Your task to perform on an android device: open a bookmark in the chrome app Image 0: 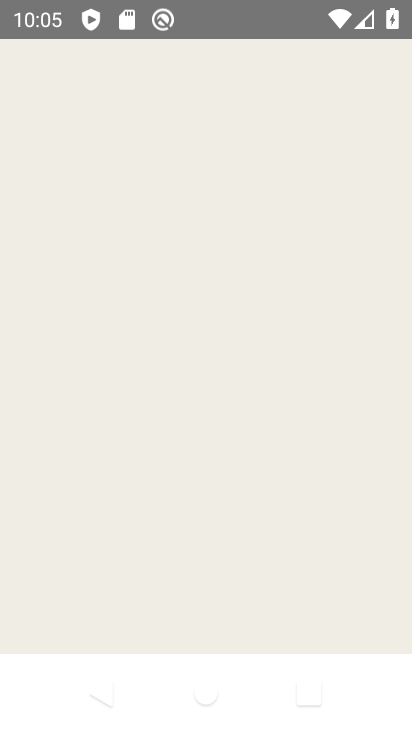
Step 0: click (272, 185)
Your task to perform on an android device: open a bookmark in the chrome app Image 1: 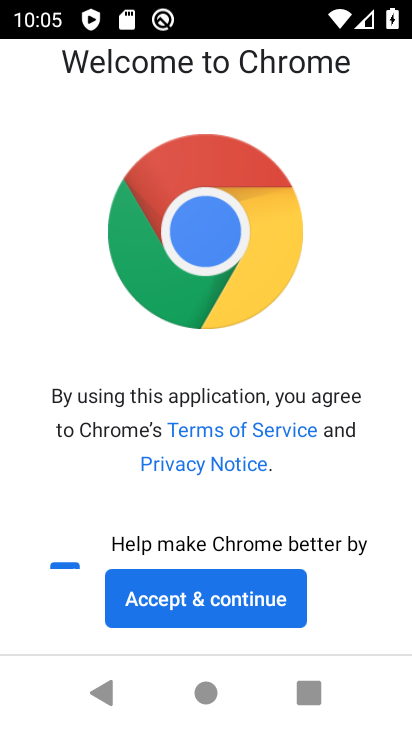
Step 1: press home button
Your task to perform on an android device: open a bookmark in the chrome app Image 2: 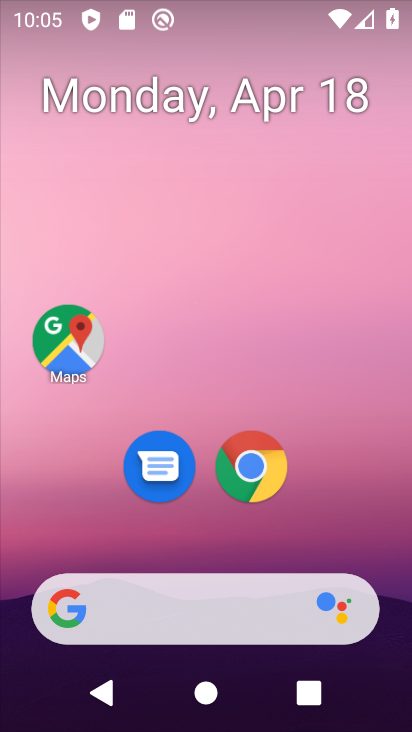
Step 2: click (265, 490)
Your task to perform on an android device: open a bookmark in the chrome app Image 3: 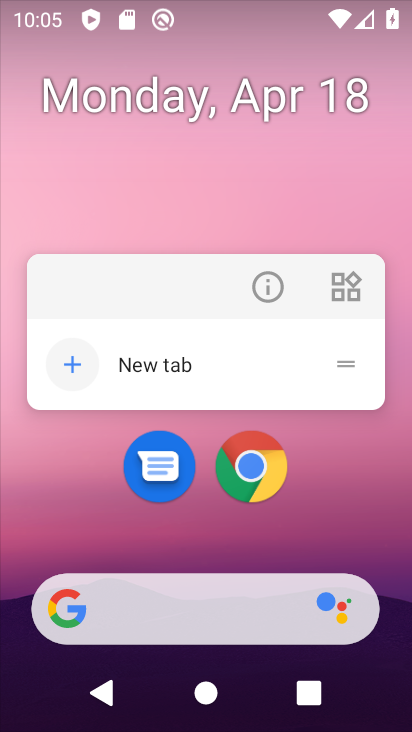
Step 3: click (258, 479)
Your task to perform on an android device: open a bookmark in the chrome app Image 4: 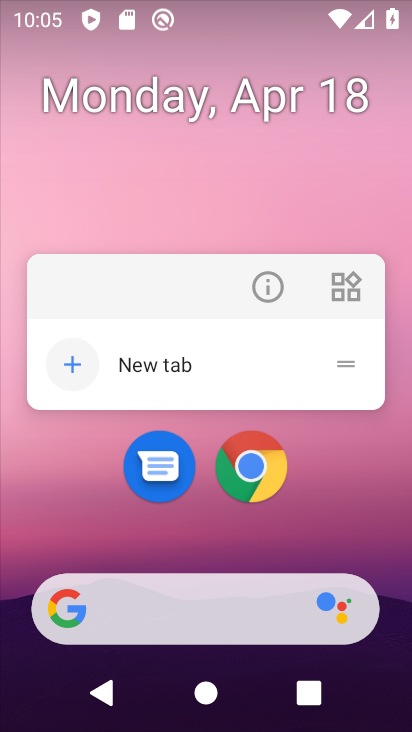
Step 4: click (251, 466)
Your task to perform on an android device: open a bookmark in the chrome app Image 5: 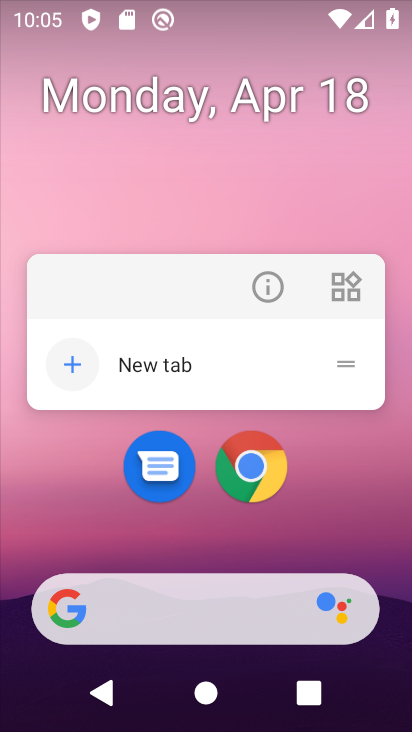
Step 5: click (251, 466)
Your task to perform on an android device: open a bookmark in the chrome app Image 6: 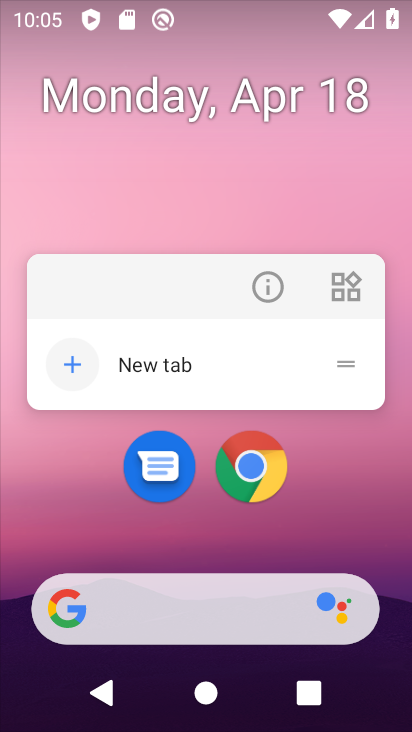
Step 6: click (251, 466)
Your task to perform on an android device: open a bookmark in the chrome app Image 7: 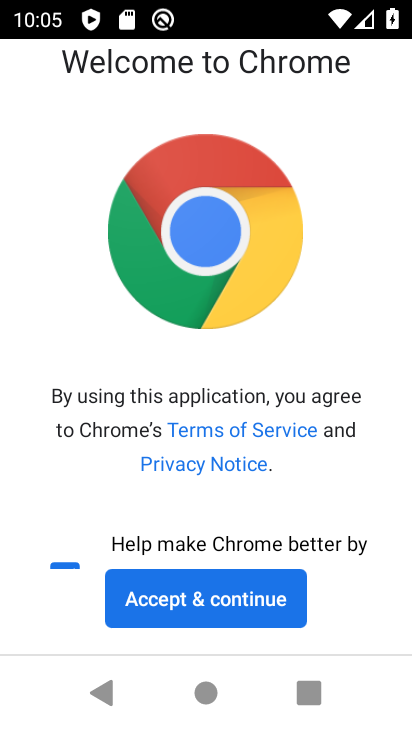
Step 7: click (252, 588)
Your task to perform on an android device: open a bookmark in the chrome app Image 8: 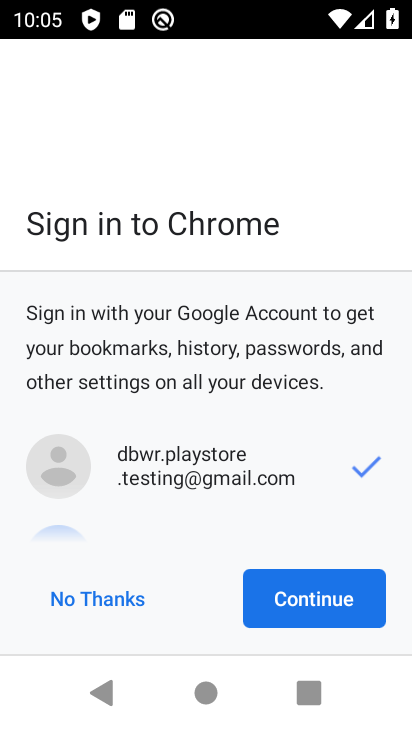
Step 8: click (305, 609)
Your task to perform on an android device: open a bookmark in the chrome app Image 9: 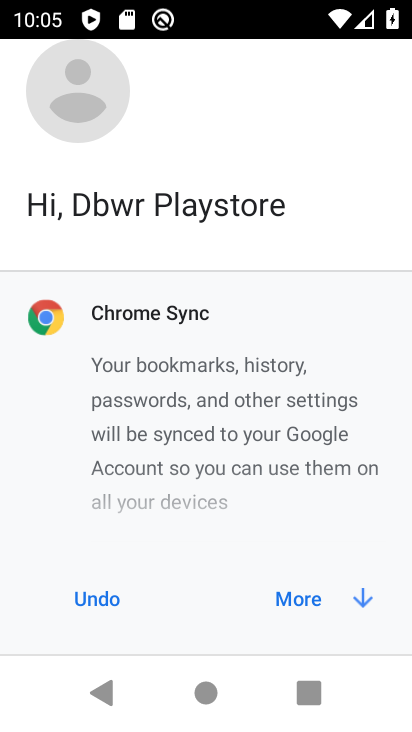
Step 9: click (305, 609)
Your task to perform on an android device: open a bookmark in the chrome app Image 10: 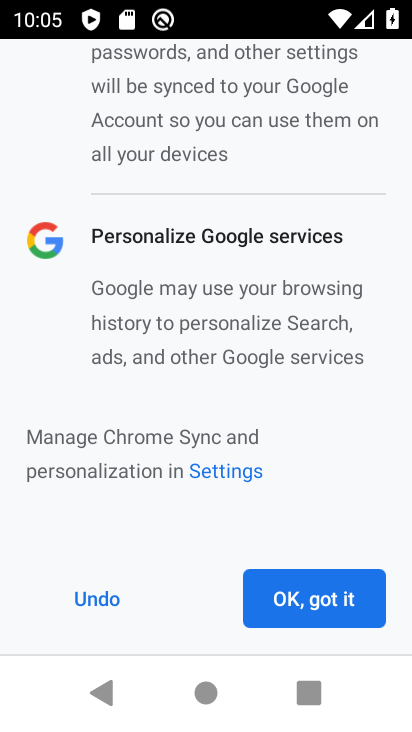
Step 10: click (305, 609)
Your task to perform on an android device: open a bookmark in the chrome app Image 11: 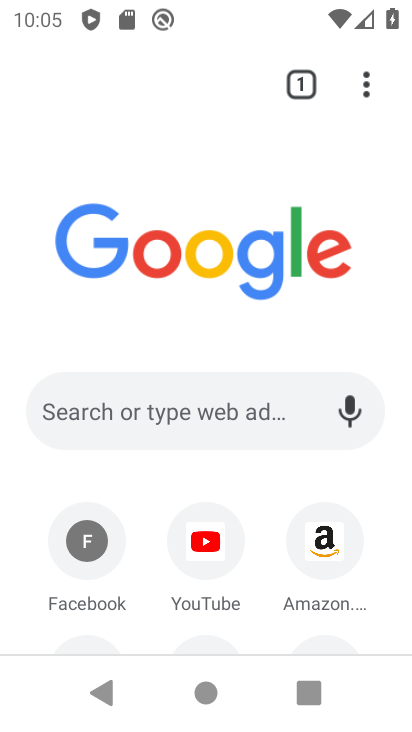
Step 11: click (367, 81)
Your task to perform on an android device: open a bookmark in the chrome app Image 12: 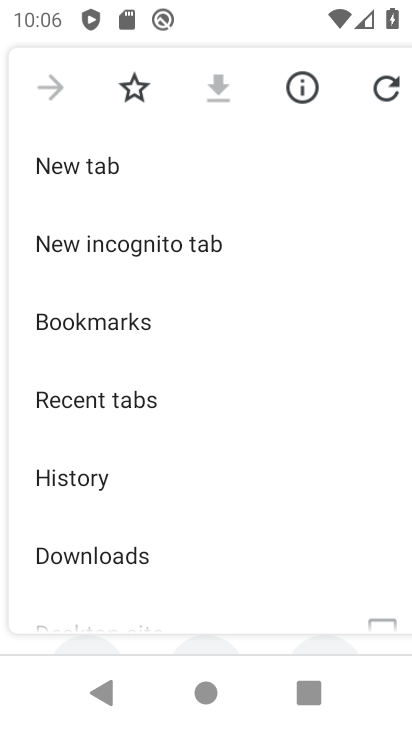
Step 12: click (146, 331)
Your task to perform on an android device: open a bookmark in the chrome app Image 13: 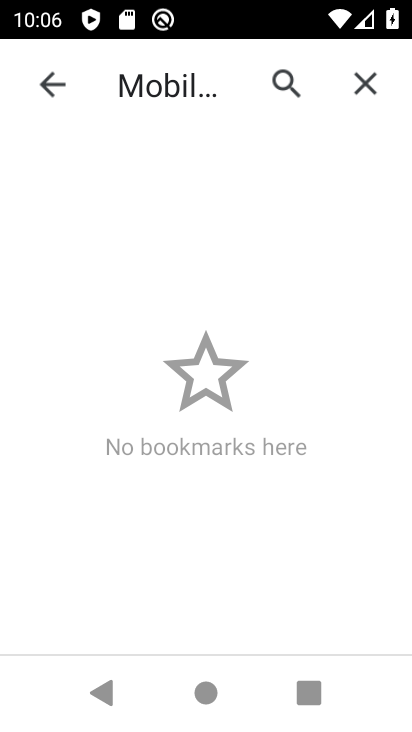
Step 13: task complete